Your task to perform on an android device: turn pop-ups on in chrome Image 0: 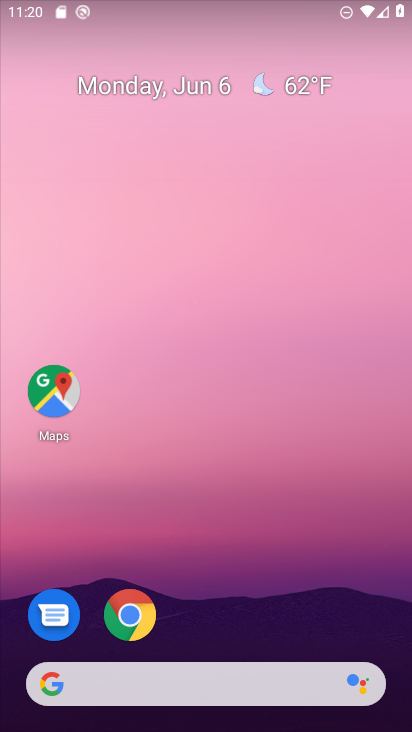
Step 0: click (123, 629)
Your task to perform on an android device: turn pop-ups on in chrome Image 1: 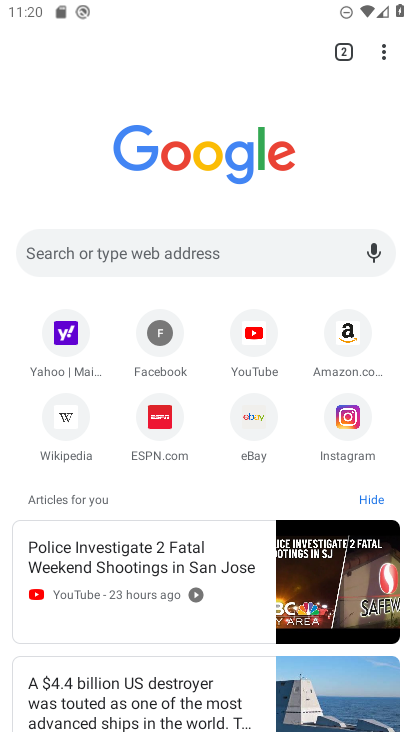
Step 1: drag from (385, 49) to (221, 493)
Your task to perform on an android device: turn pop-ups on in chrome Image 2: 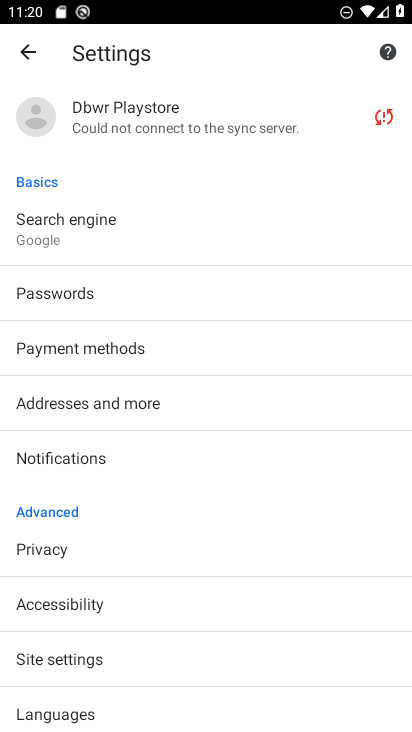
Step 2: drag from (98, 570) to (129, 206)
Your task to perform on an android device: turn pop-ups on in chrome Image 3: 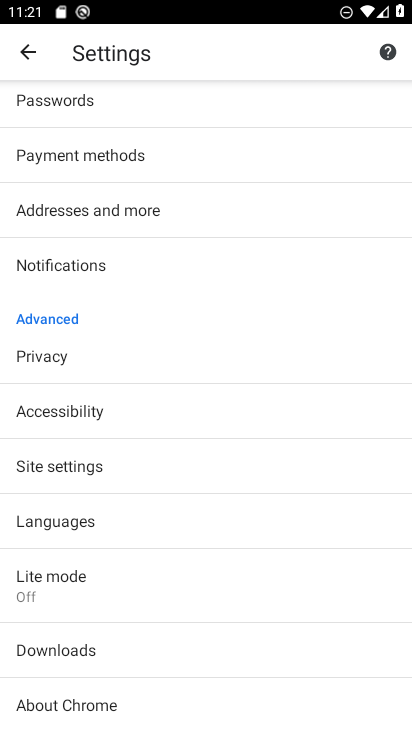
Step 3: click (65, 455)
Your task to perform on an android device: turn pop-ups on in chrome Image 4: 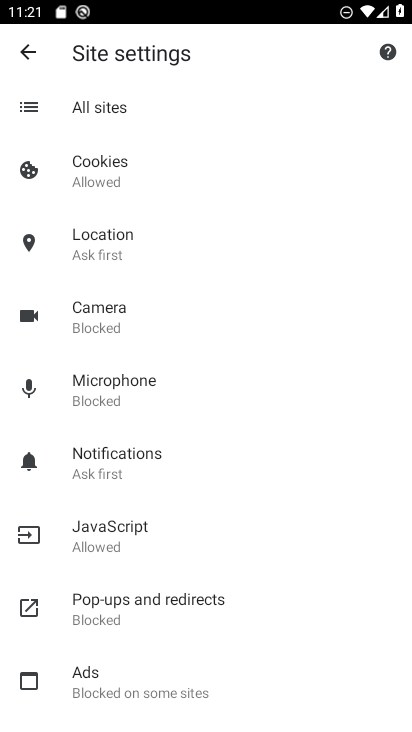
Step 4: click (130, 613)
Your task to perform on an android device: turn pop-ups on in chrome Image 5: 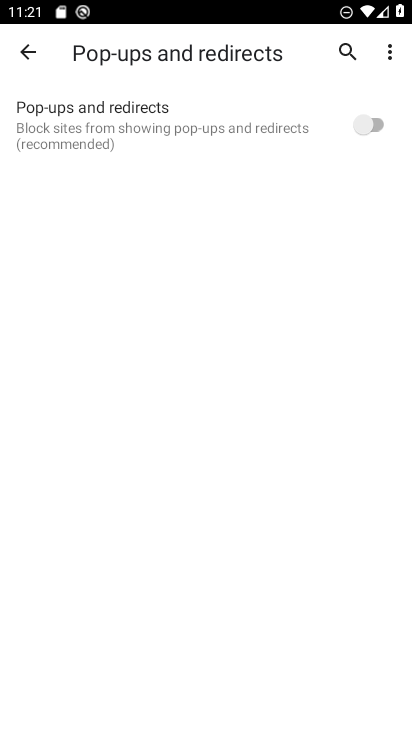
Step 5: click (371, 117)
Your task to perform on an android device: turn pop-ups on in chrome Image 6: 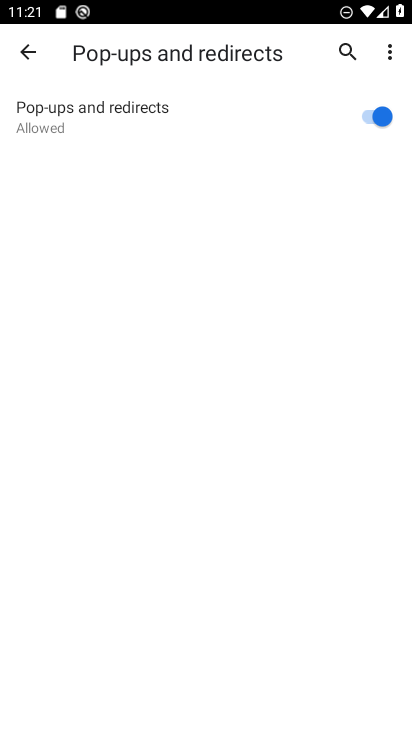
Step 6: task complete